Your task to perform on an android device: Show me popular videos on Youtube Image 0: 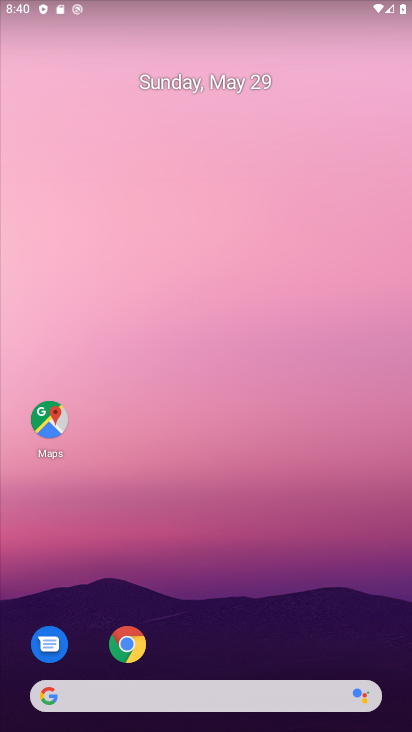
Step 0: drag from (249, 703) to (277, 28)
Your task to perform on an android device: Show me popular videos on Youtube Image 1: 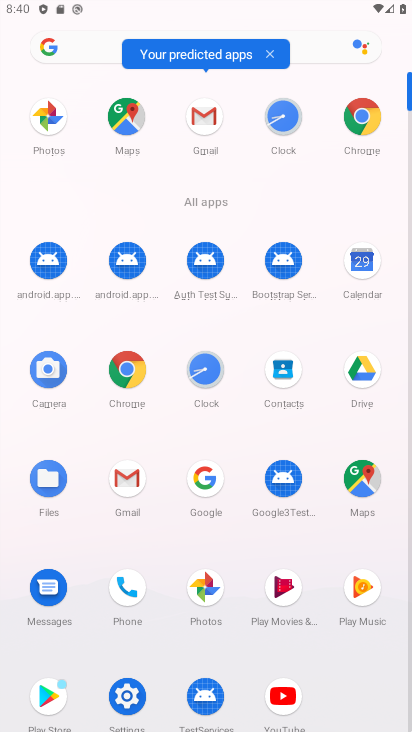
Step 1: click (282, 690)
Your task to perform on an android device: Show me popular videos on Youtube Image 2: 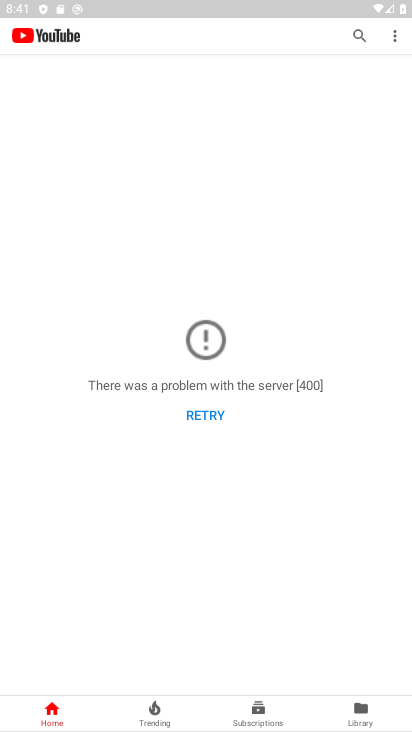
Step 2: click (153, 706)
Your task to perform on an android device: Show me popular videos on Youtube Image 3: 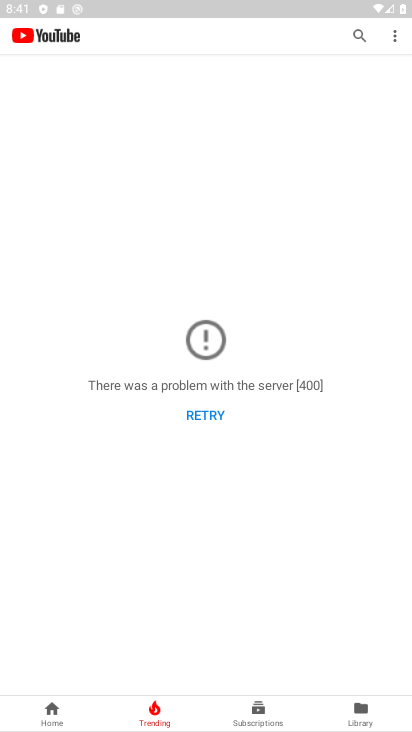
Step 3: task complete